Your task to perform on an android device: turn pop-ups on in chrome Image 0: 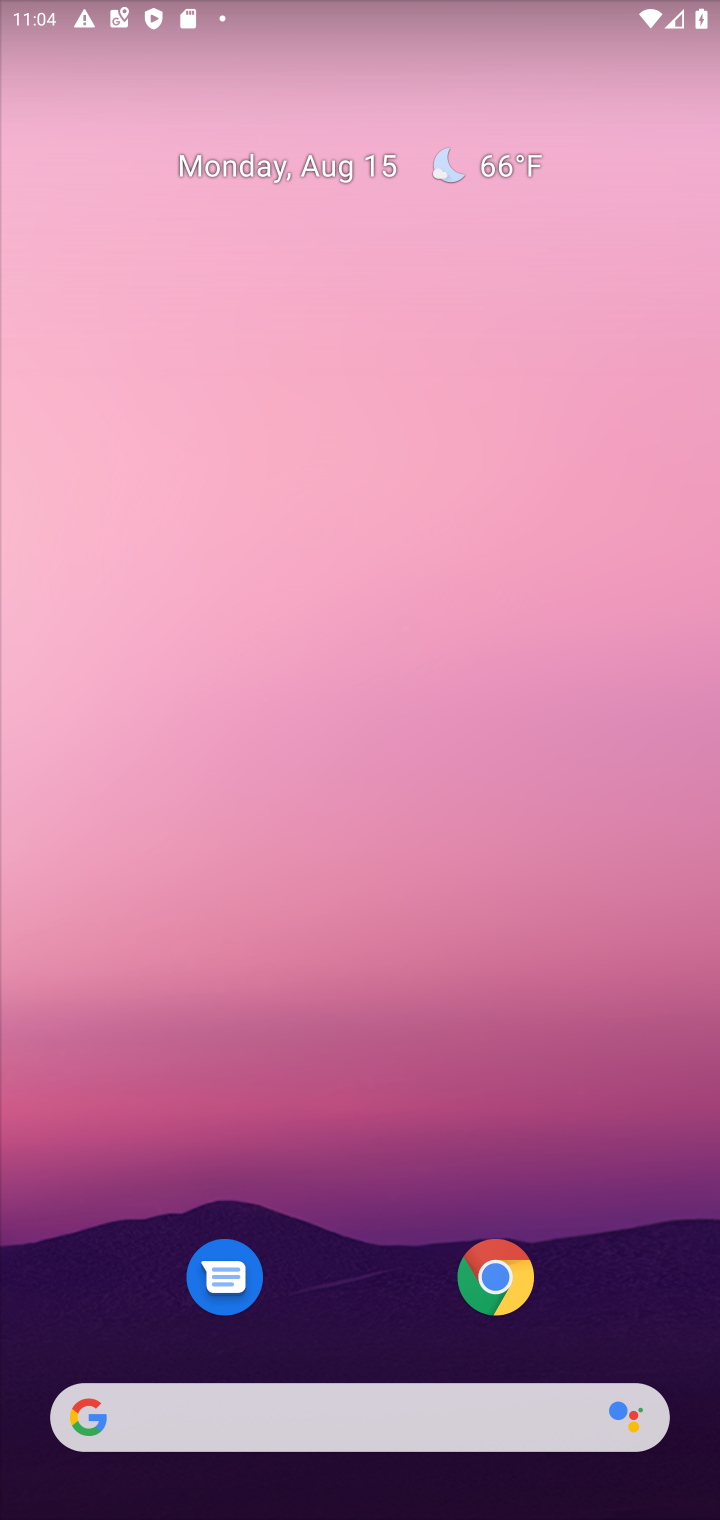
Step 0: click (507, 1294)
Your task to perform on an android device: turn pop-ups on in chrome Image 1: 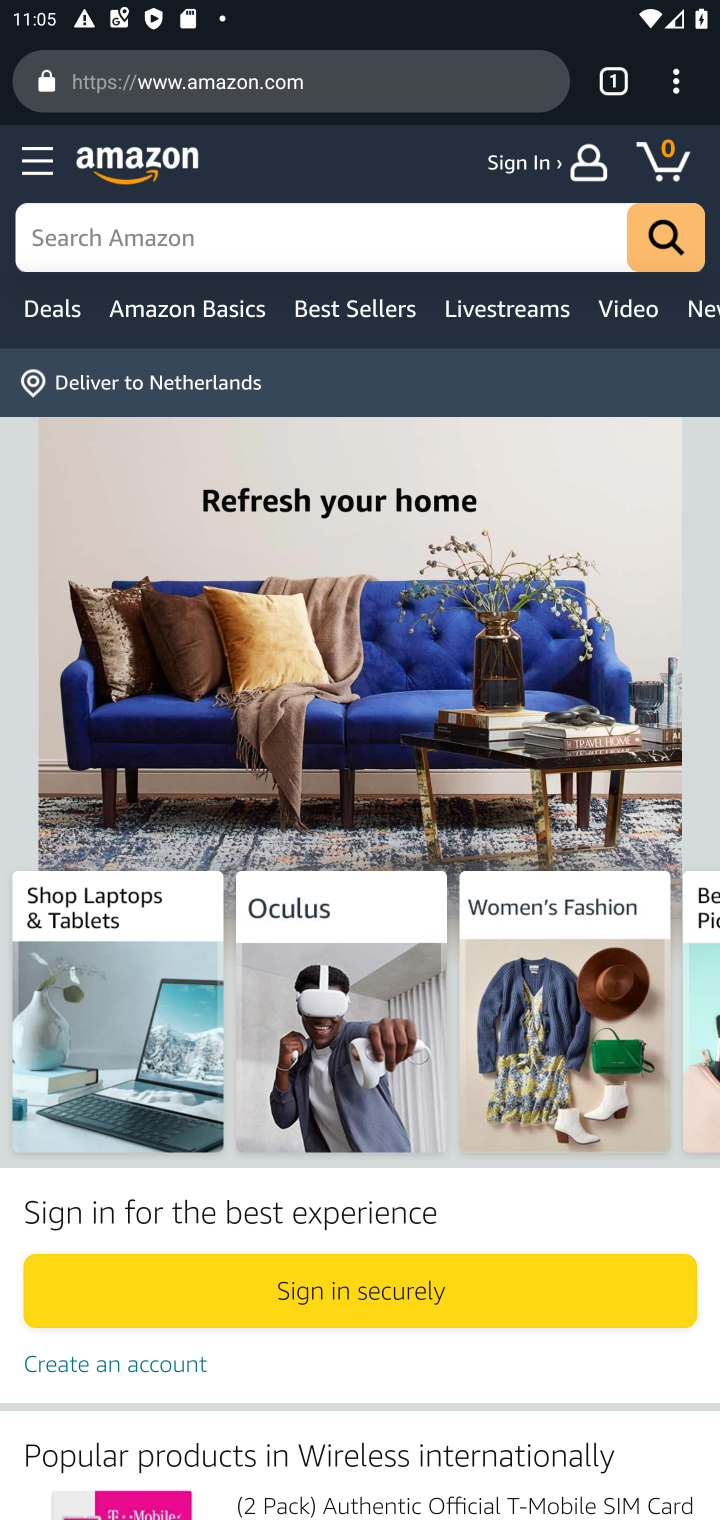
Step 1: drag from (681, 68) to (400, 1071)
Your task to perform on an android device: turn pop-ups on in chrome Image 2: 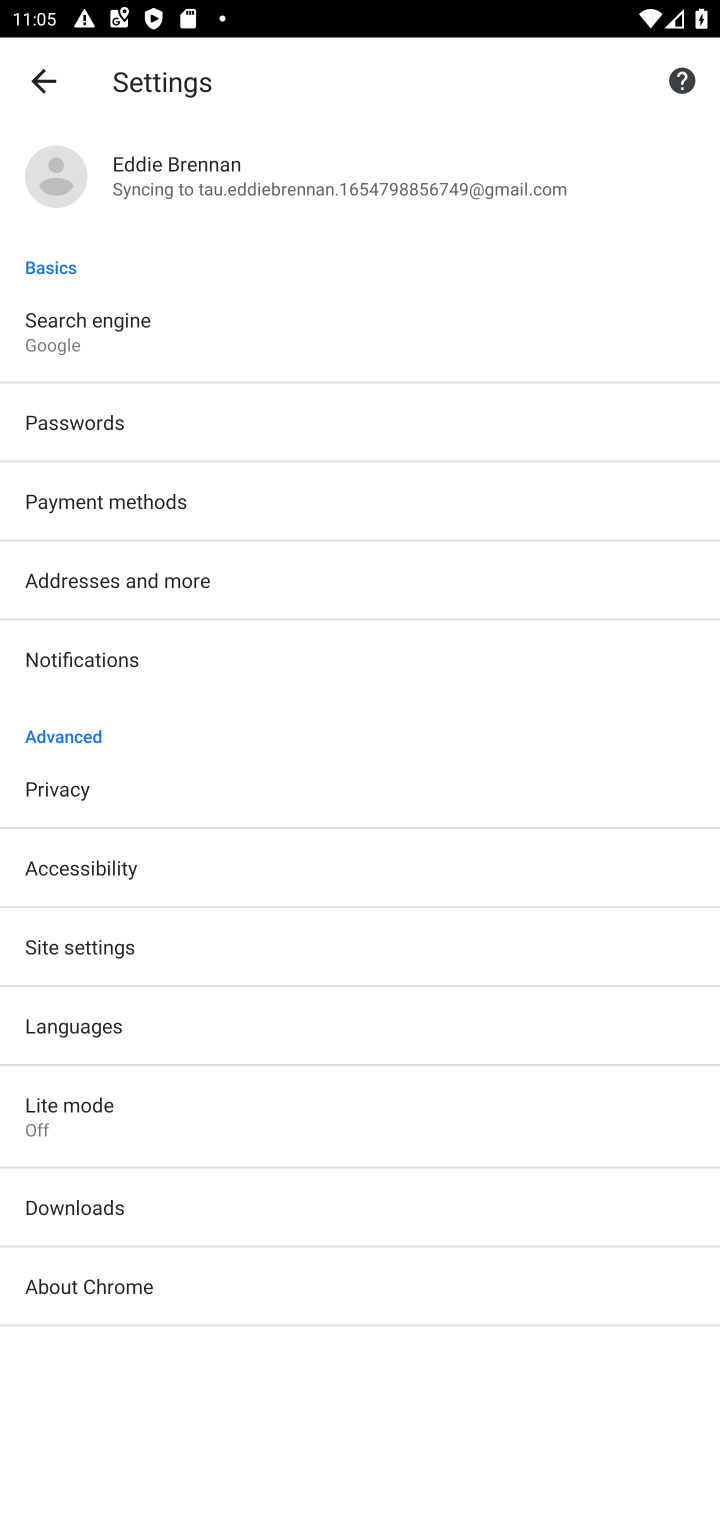
Step 2: click (138, 973)
Your task to perform on an android device: turn pop-ups on in chrome Image 3: 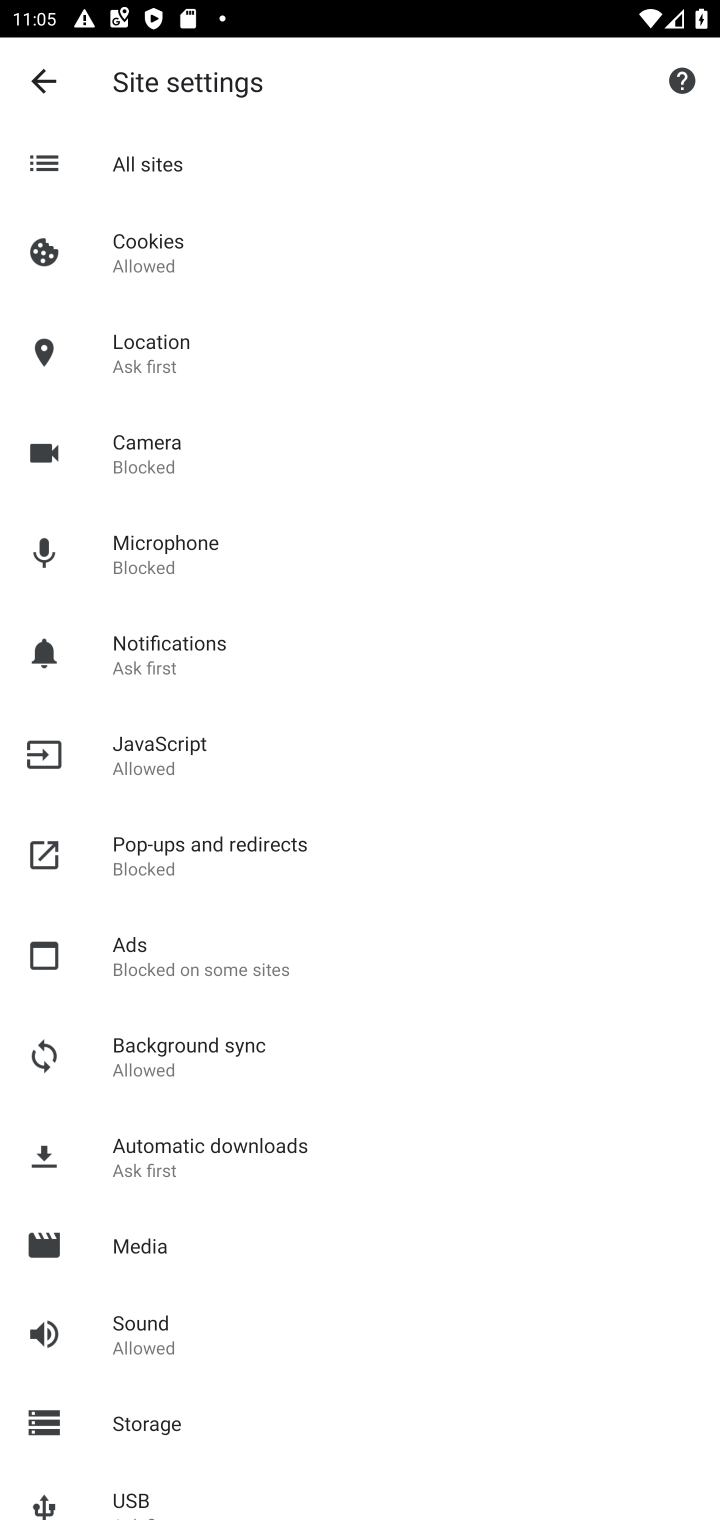
Step 3: click (298, 843)
Your task to perform on an android device: turn pop-ups on in chrome Image 4: 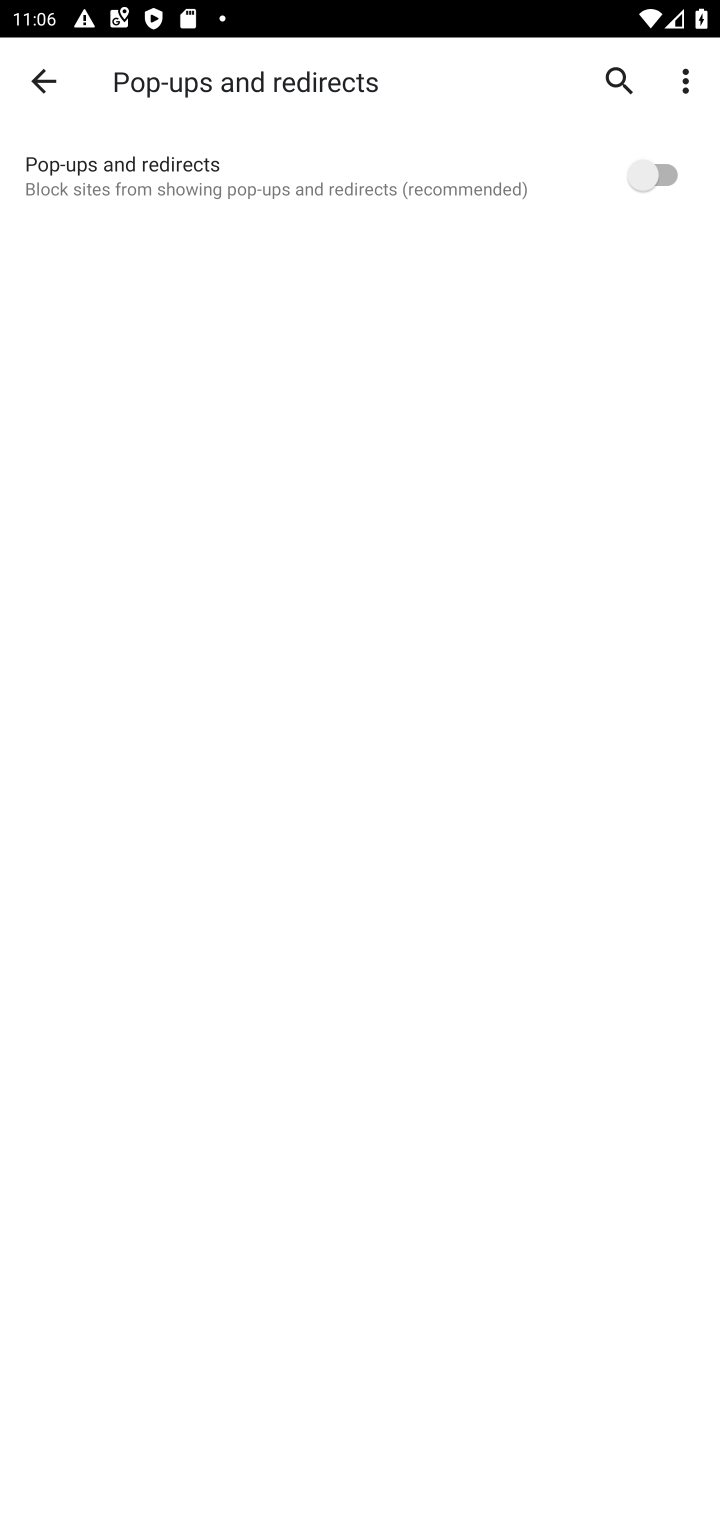
Step 4: click (659, 159)
Your task to perform on an android device: turn pop-ups on in chrome Image 5: 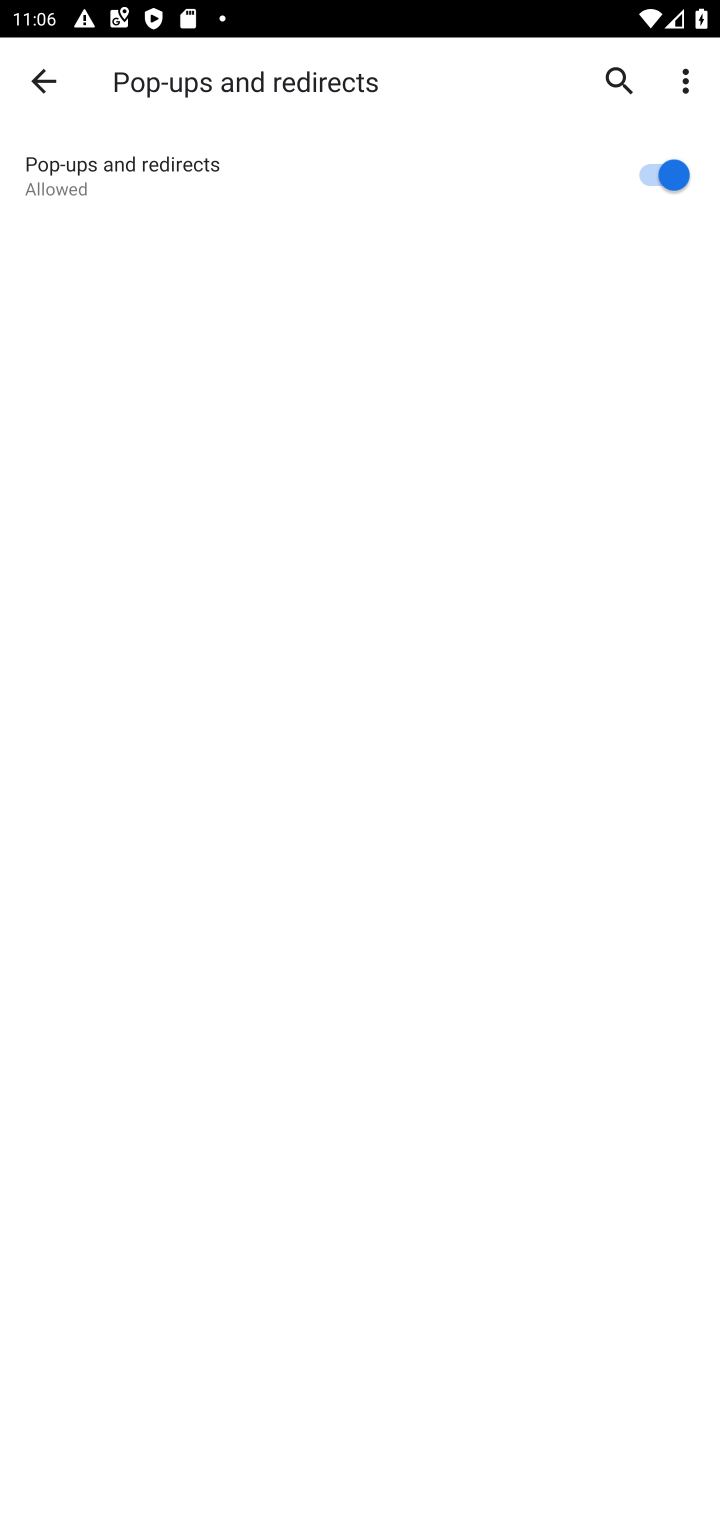
Step 5: task complete